Your task to perform on an android device: What is the recent news? Image 0: 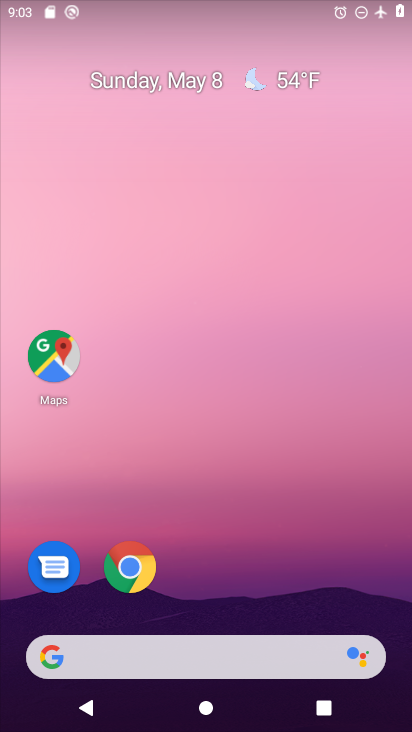
Step 0: drag from (229, 575) to (276, 40)
Your task to perform on an android device: What is the recent news? Image 1: 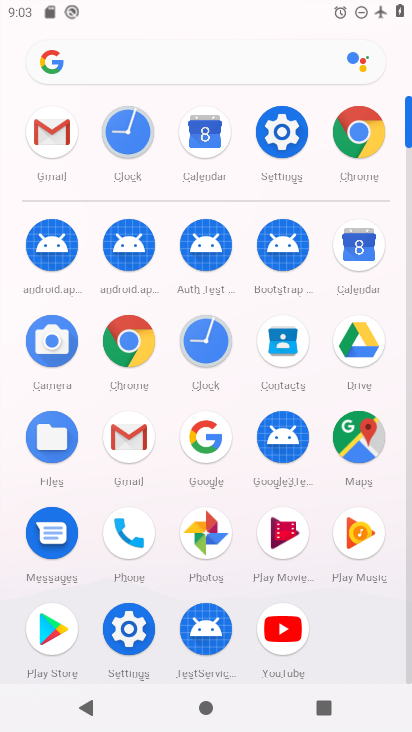
Step 1: click (356, 140)
Your task to perform on an android device: What is the recent news? Image 2: 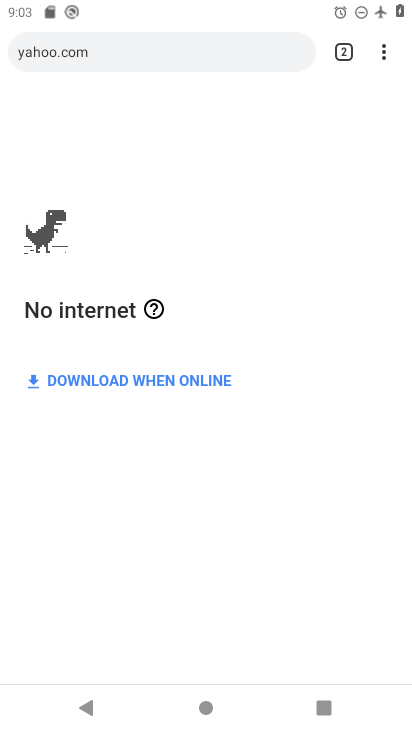
Step 2: task complete